Your task to perform on an android device: open app "Messenger Lite" (install if not already installed) and go to login screen Image 0: 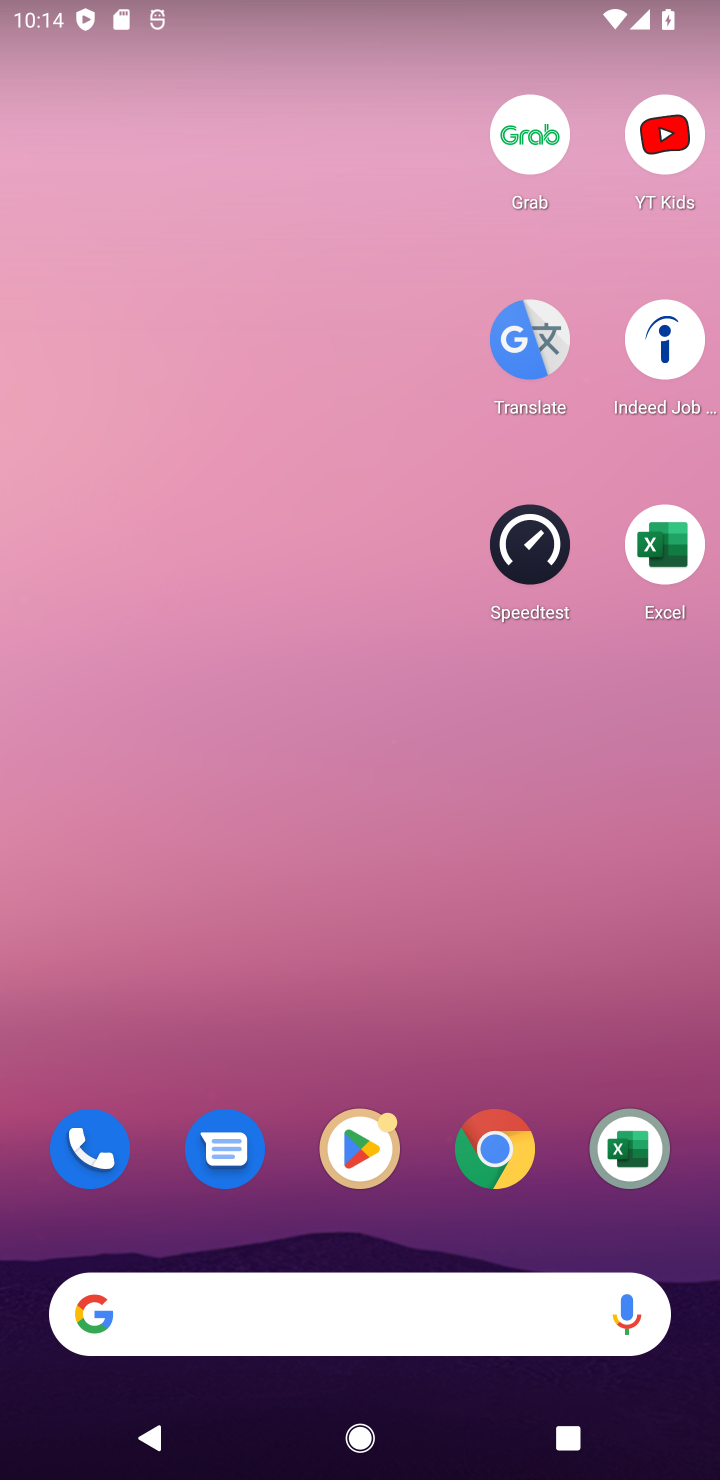
Step 0: click (577, 78)
Your task to perform on an android device: open app "Messenger Lite" (install if not already installed) and go to login screen Image 1: 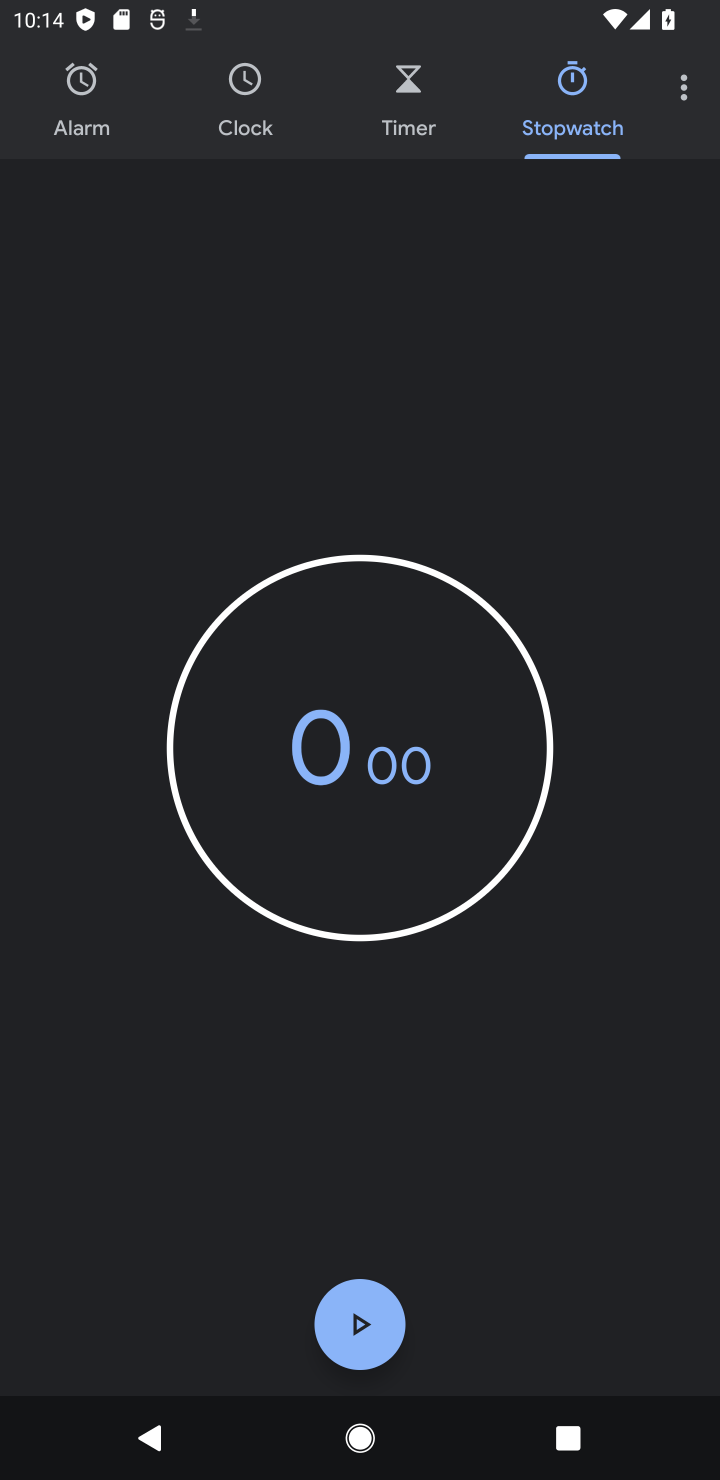
Step 1: press home button
Your task to perform on an android device: open app "Messenger Lite" (install if not already installed) and go to login screen Image 2: 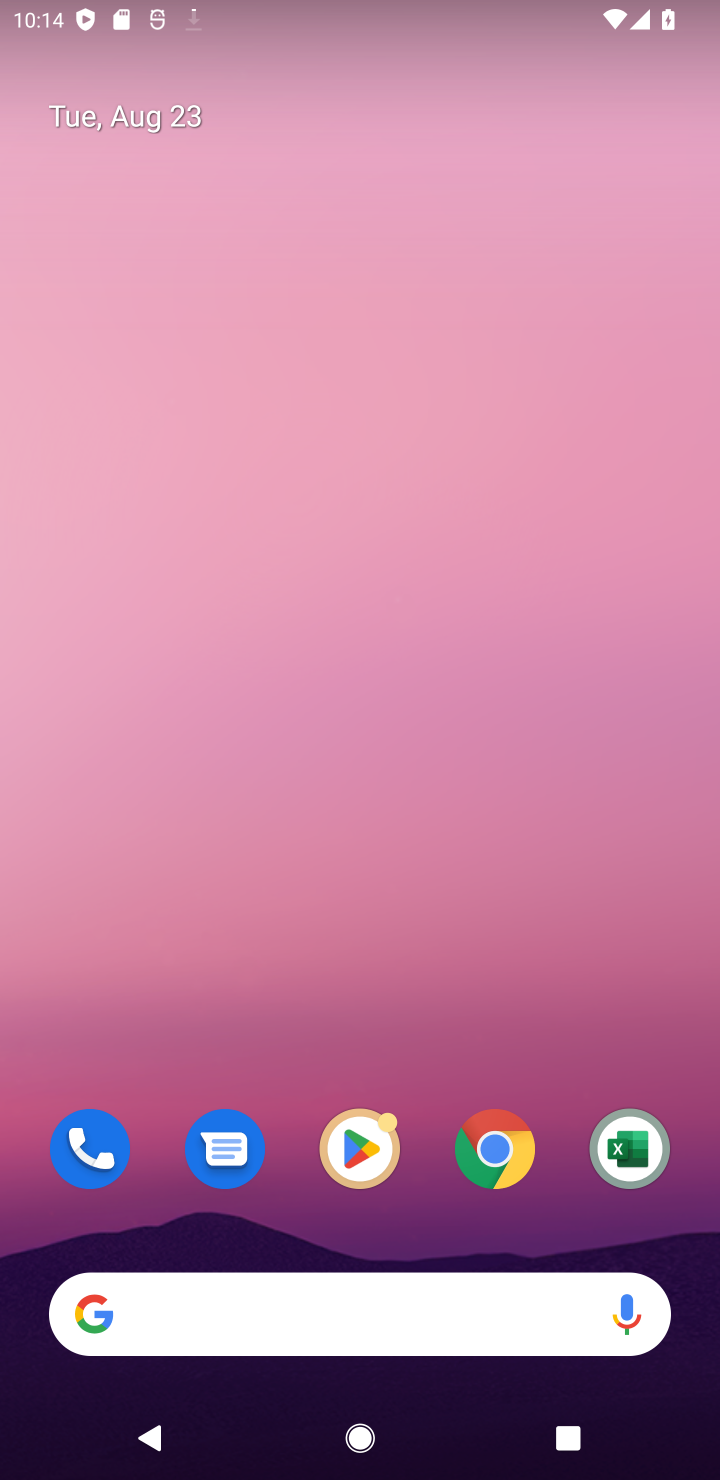
Step 2: click (362, 1167)
Your task to perform on an android device: open app "Messenger Lite" (install if not already installed) and go to login screen Image 3: 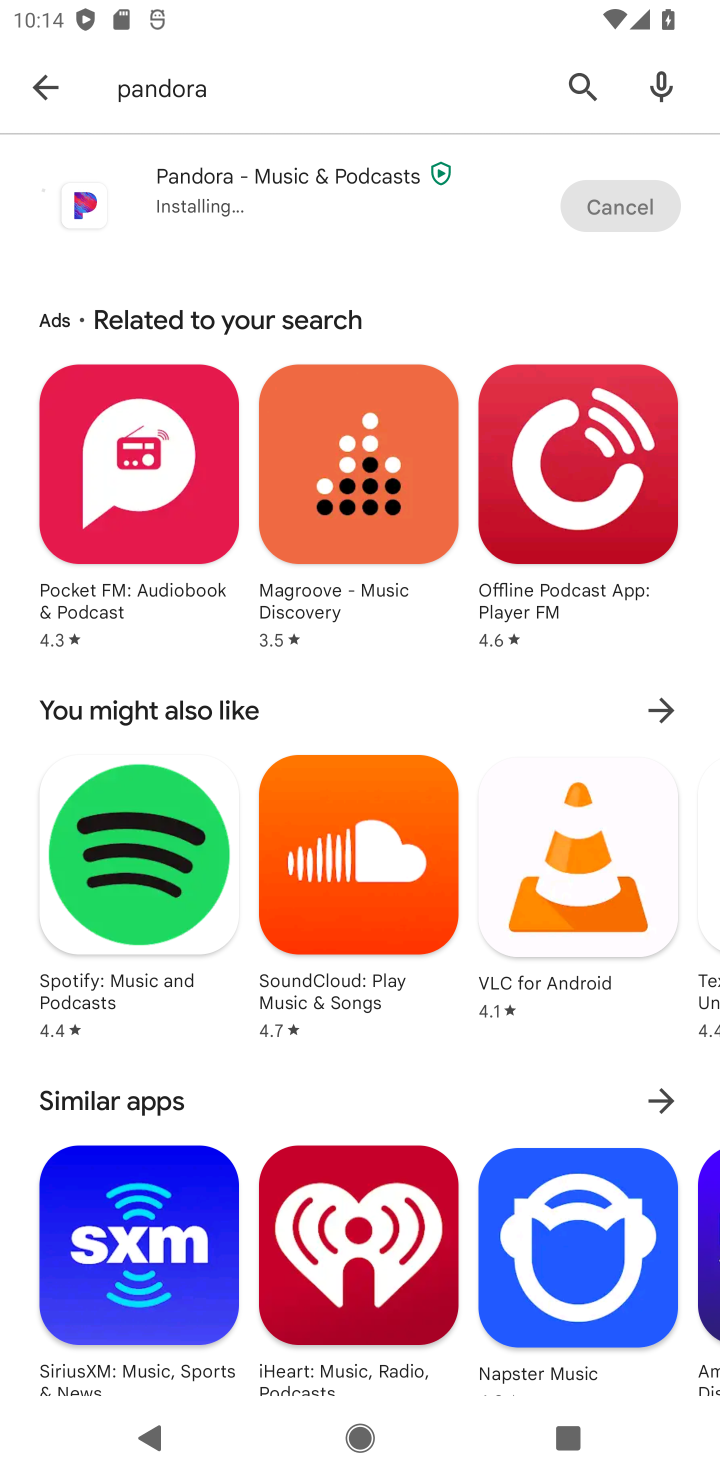
Step 3: click (602, 82)
Your task to perform on an android device: open app "Messenger Lite" (install if not already installed) and go to login screen Image 4: 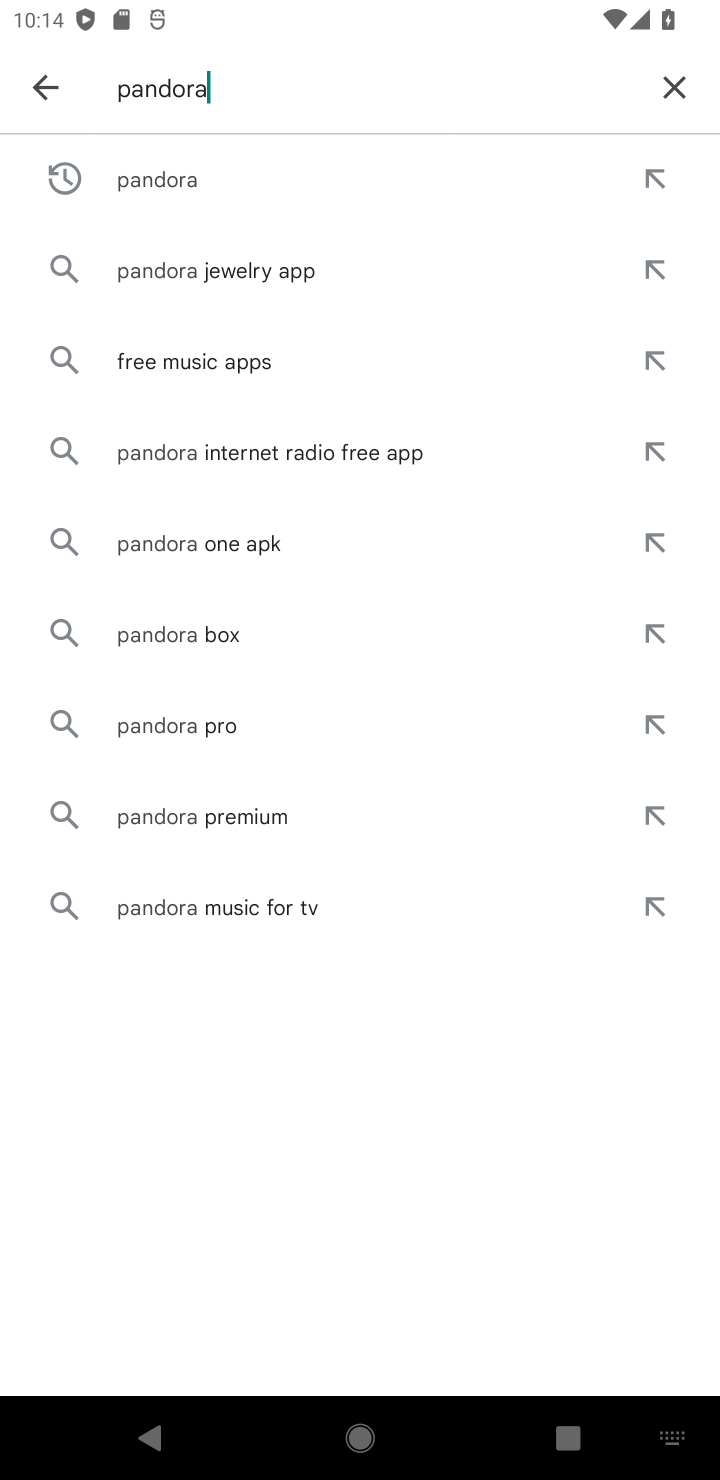
Step 4: click (648, 82)
Your task to perform on an android device: open app "Messenger Lite" (install if not already installed) and go to login screen Image 5: 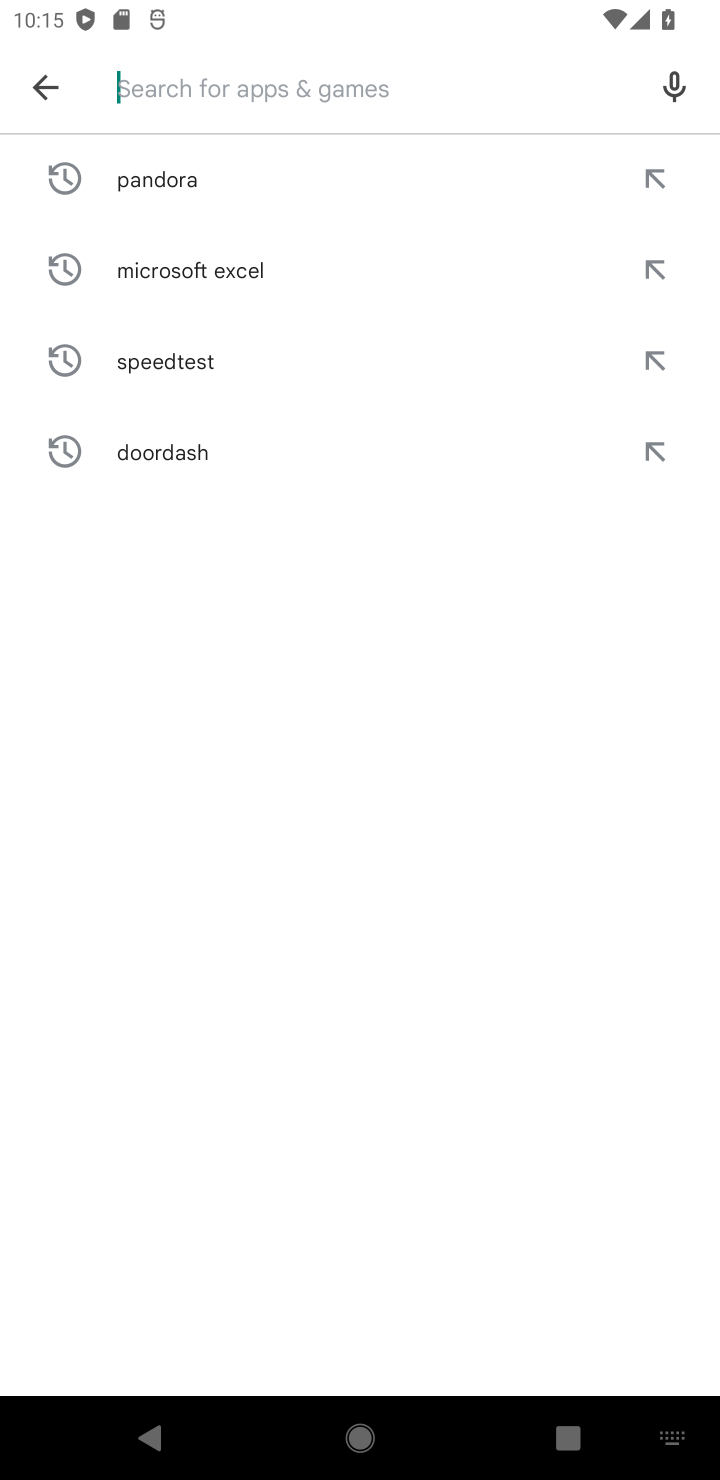
Step 5: type "messanger"
Your task to perform on an android device: open app "Messenger Lite" (install if not already installed) and go to login screen Image 6: 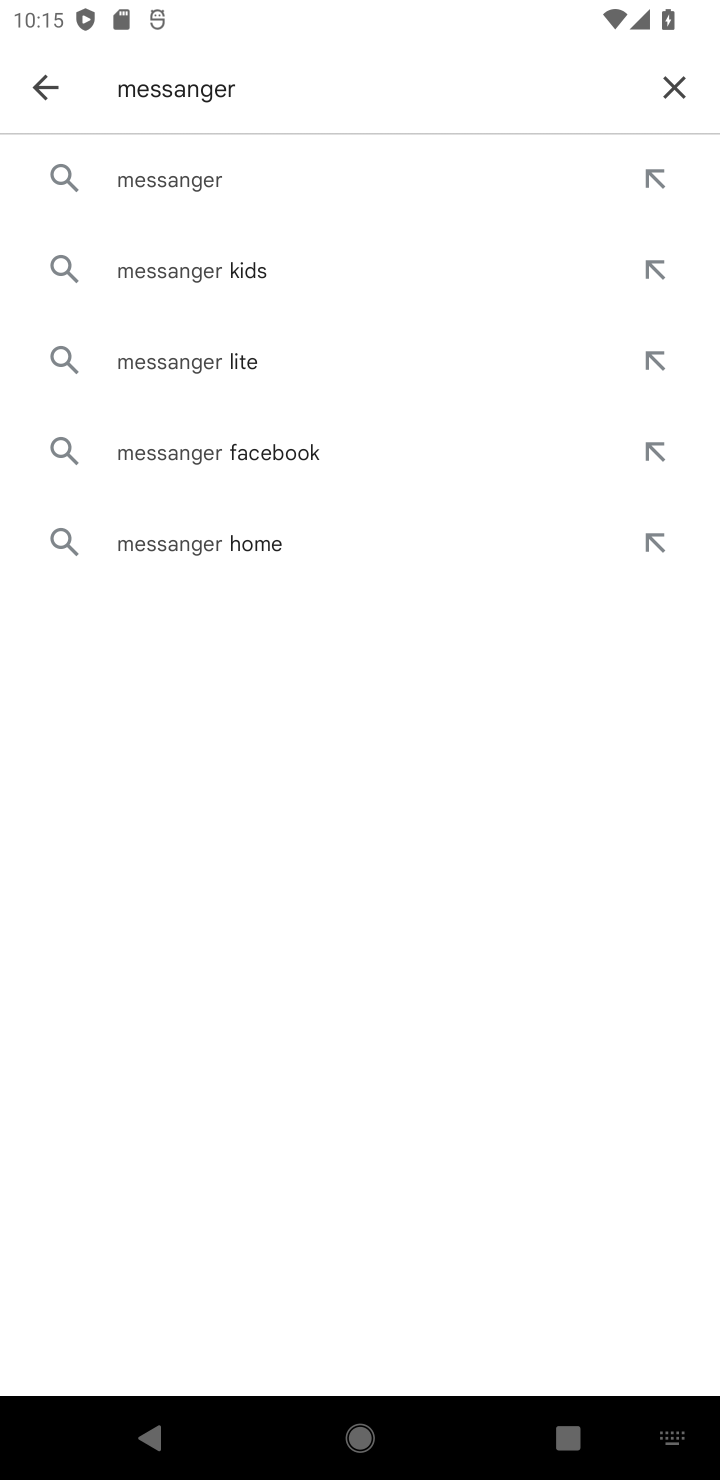
Step 6: click (273, 350)
Your task to perform on an android device: open app "Messenger Lite" (install if not already installed) and go to login screen Image 7: 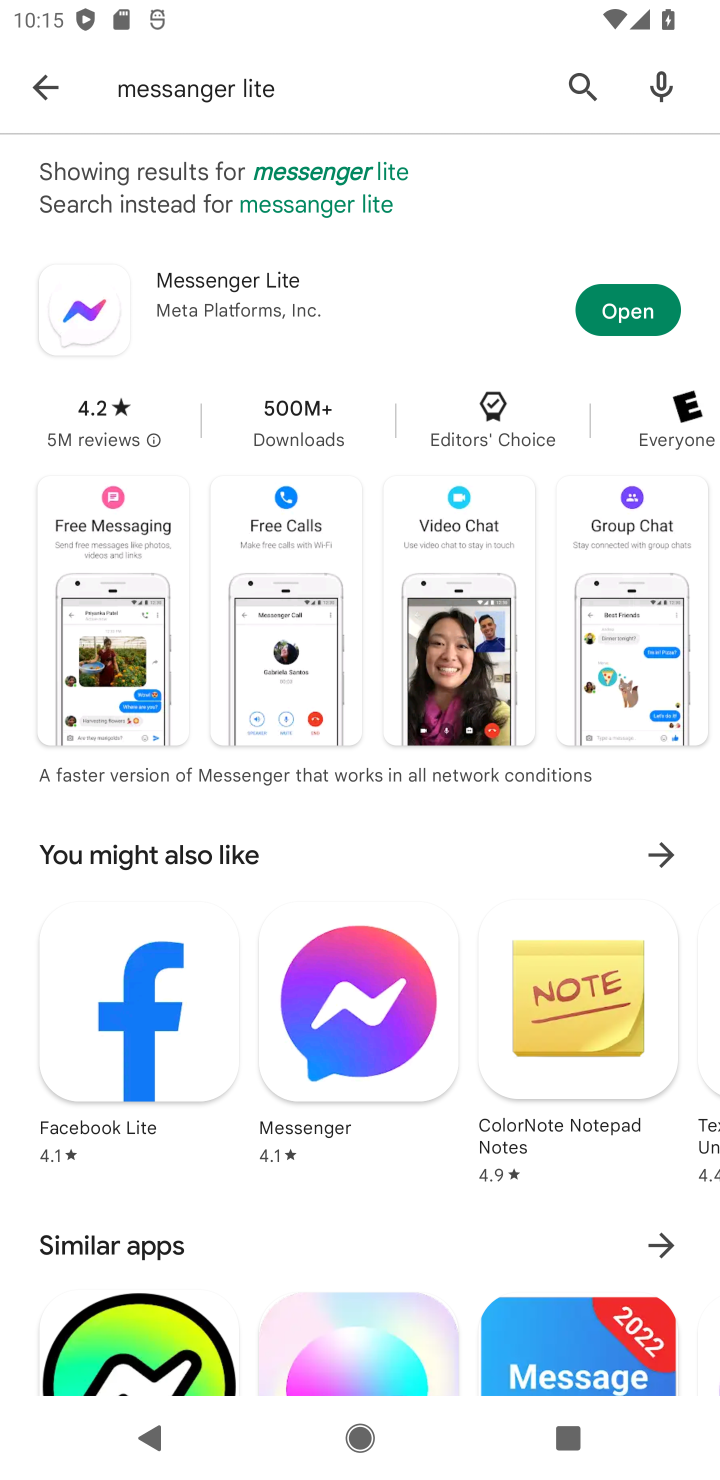
Step 7: click (611, 298)
Your task to perform on an android device: open app "Messenger Lite" (install if not already installed) and go to login screen Image 8: 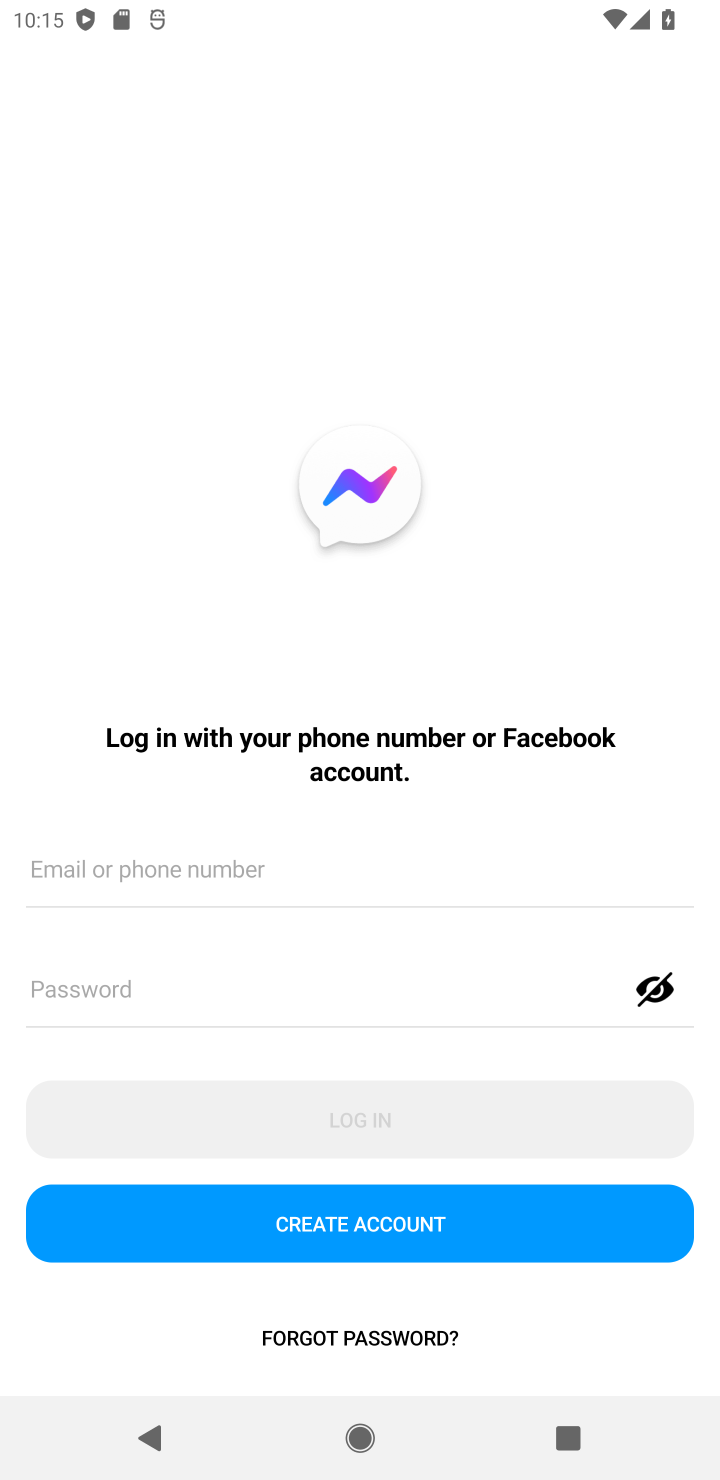
Step 8: task complete